Your task to perform on an android device: Open settings on Google Maps Image 0: 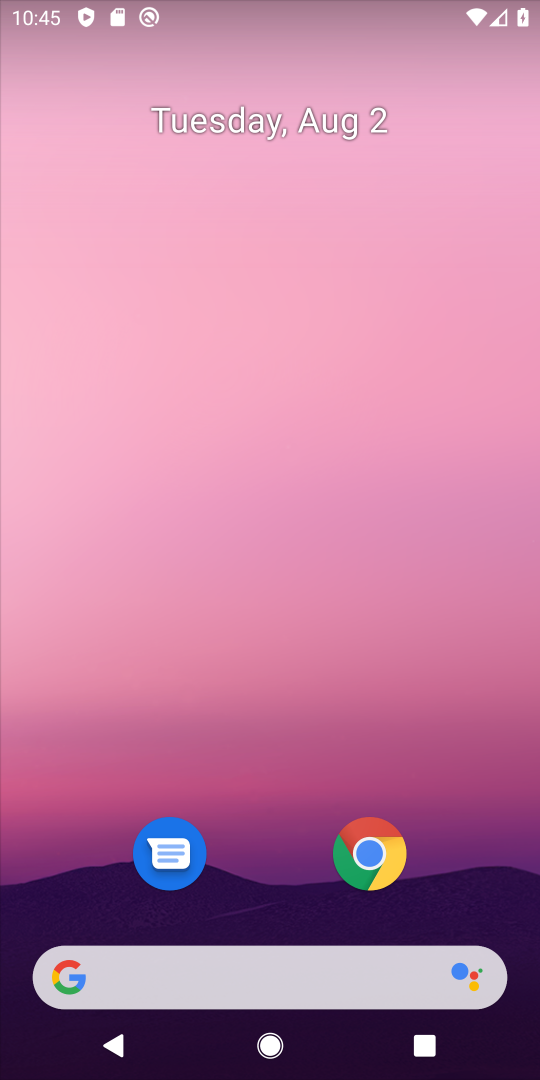
Step 0: drag from (493, 849) to (366, 204)
Your task to perform on an android device: Open settings on Google Maps Image 1: 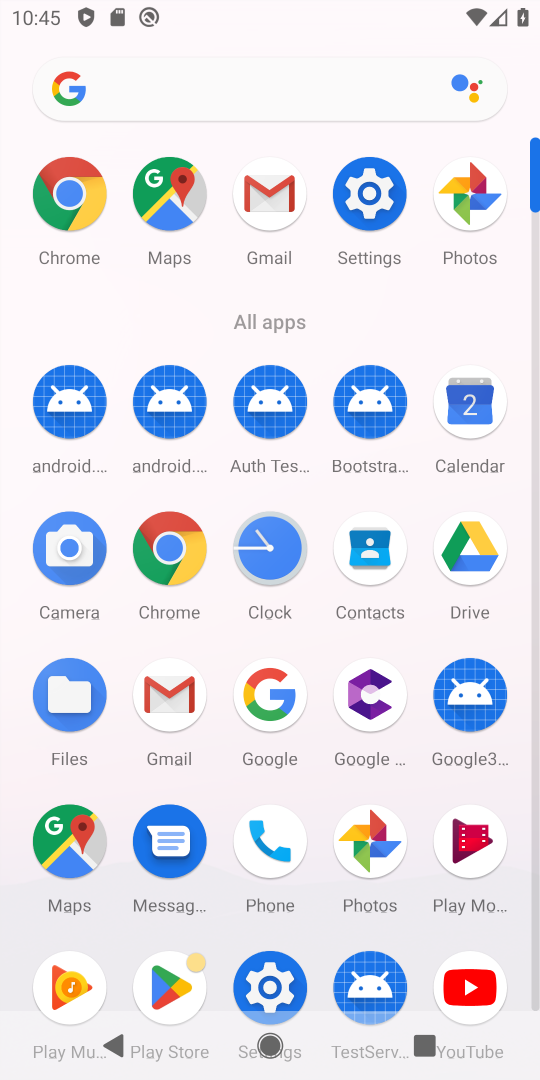
Step 1: click (88, 825)
Your task to perform on an android device: Open settings on Google Maps Image 2: 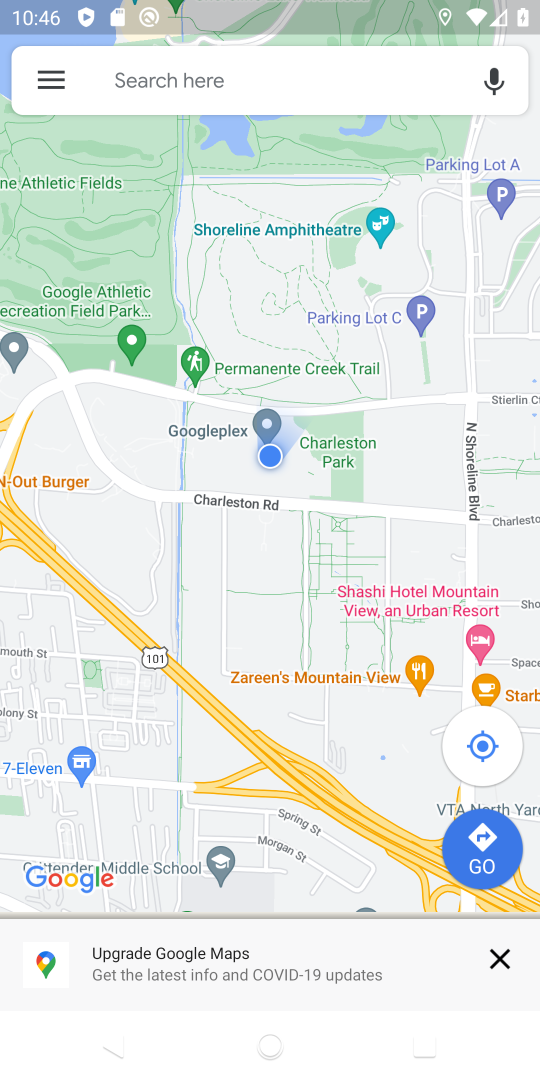
Step 2: click (46, 73)
Your task to perform on an android device: Open settings on Google Maps Image 3: 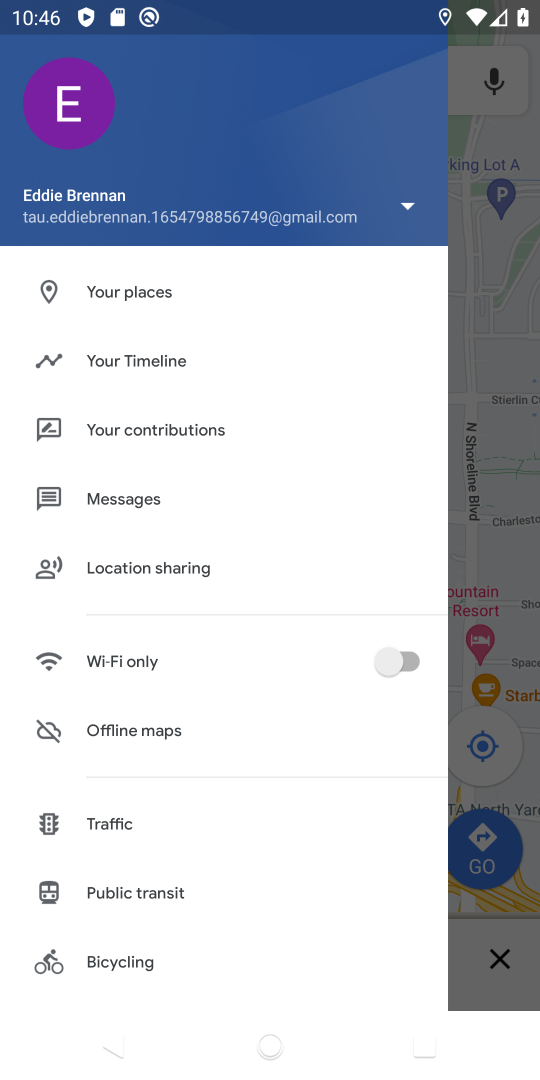
Step 3: drag from (165, 782) to (154, 402)
Your task to perform on an android device: Open settings on Google Maps Image 4: 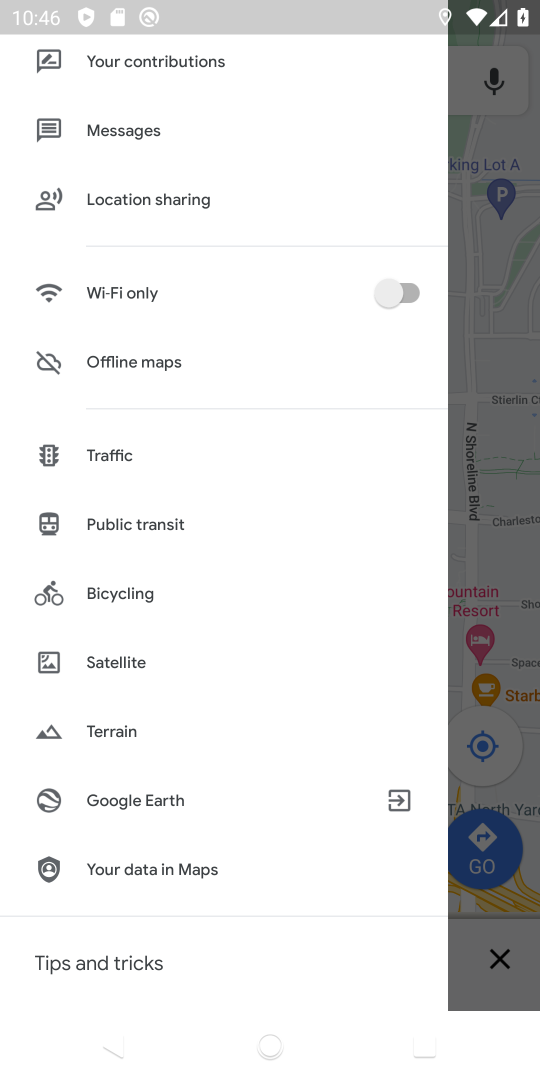
Step 4: drag from (212, 929) to (192, 645)
Your task to perform on an android device: Open settings on Google Maps Image 5: 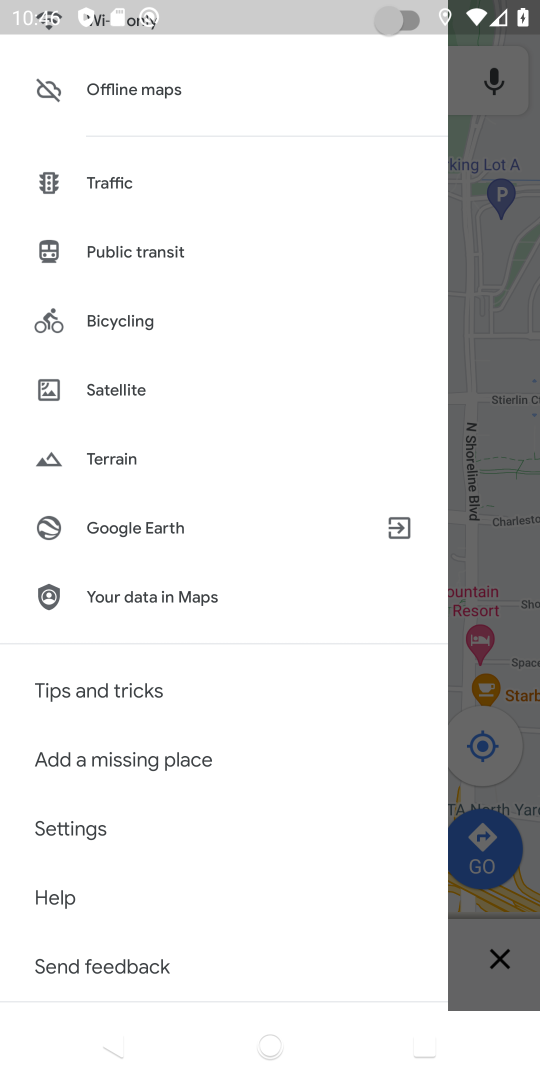
Step 5: click (65, 830)
Your task to perform on an android device: Open settings on Google Maps Image 6: 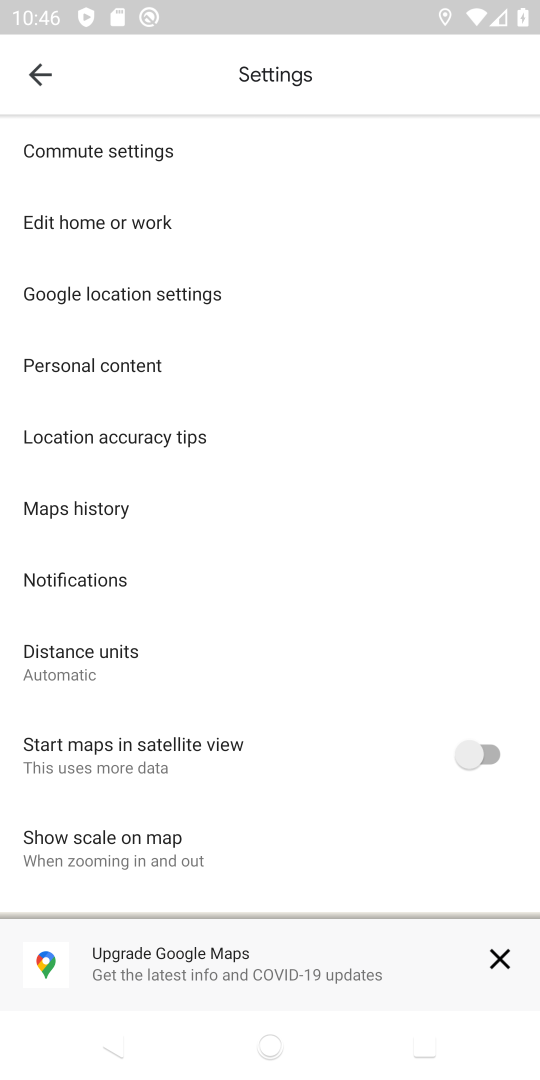
Step 6: task complete